Your task to perform on an android device: Show the shopping cart on bestbuy.com. Image 0: 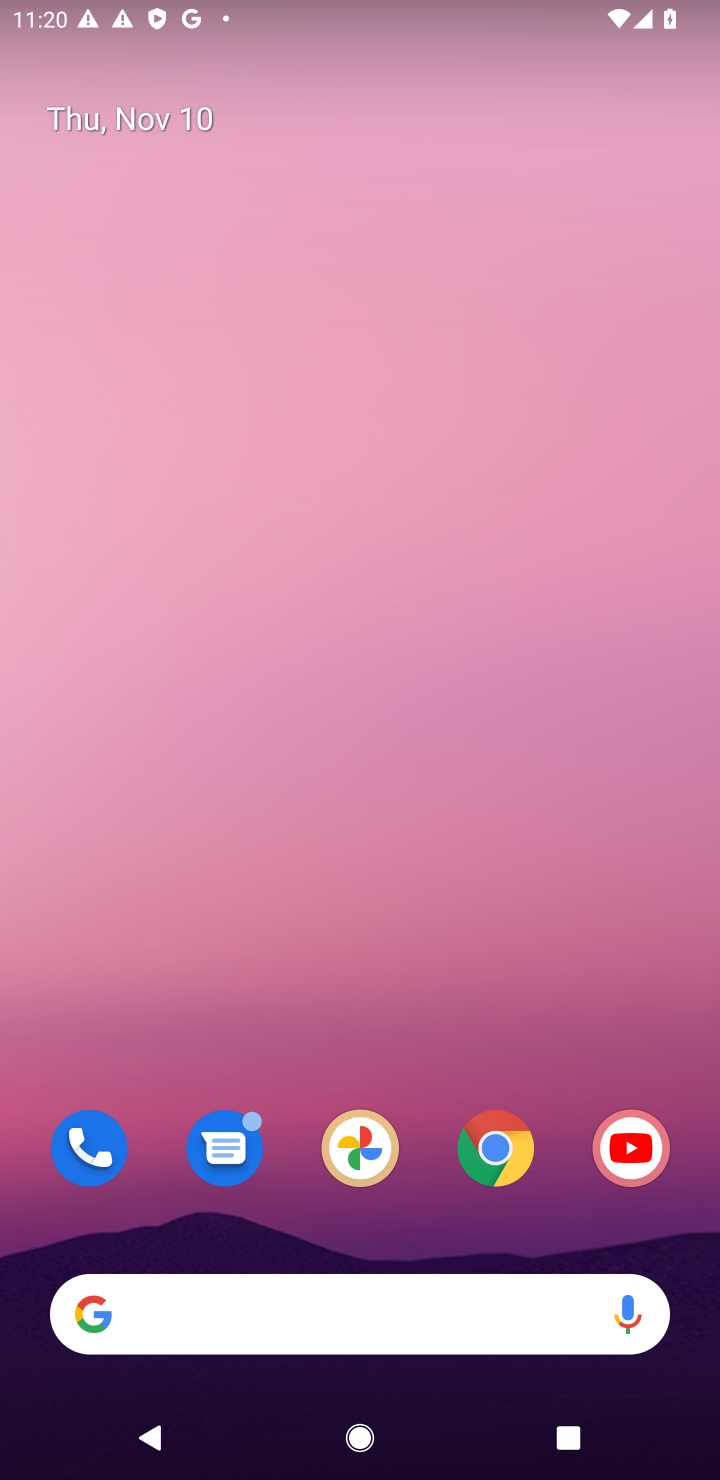
Step 0: click (516, 1136)
Your task to perform on an android device: Show the shopping cart on bestbuy.com. Image 1: 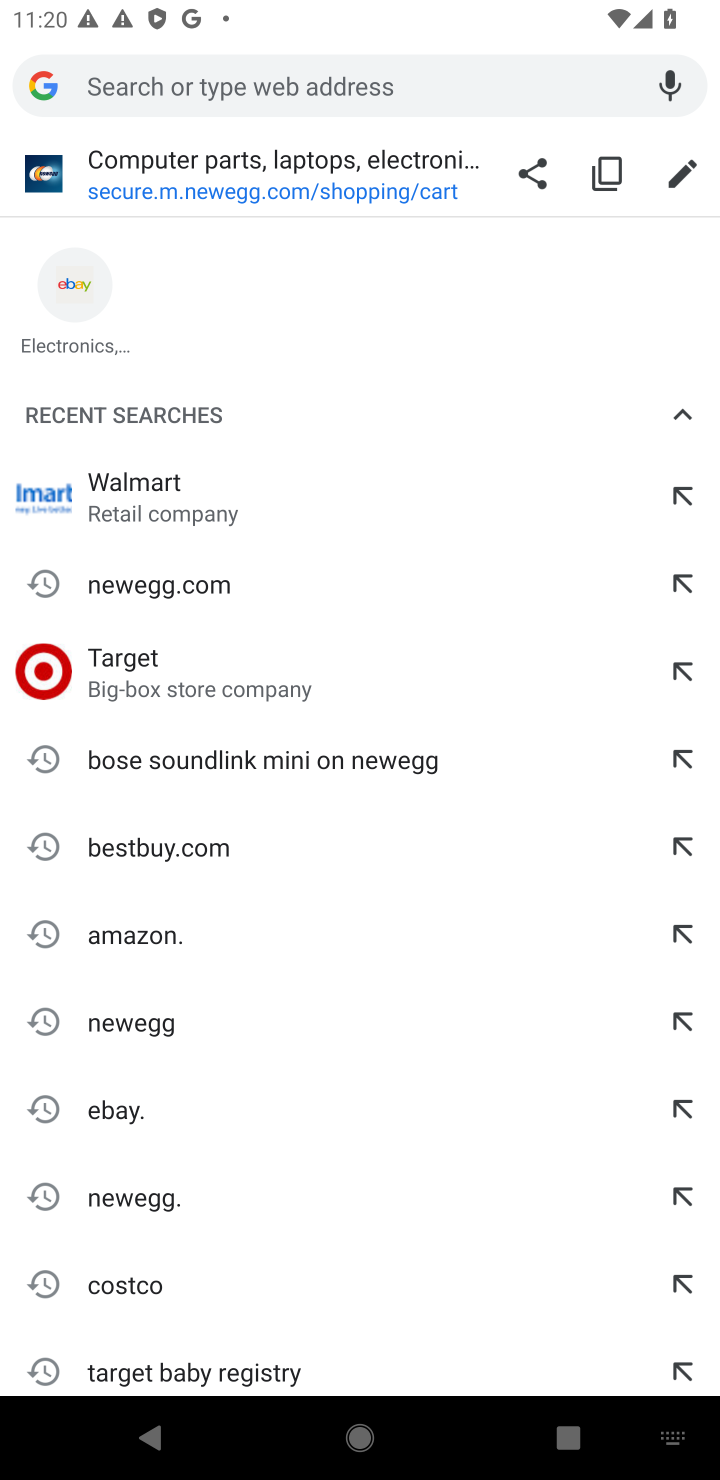
Step 1: click (141, 842)
Your task to perform on an android device: Show the shopping cart on bestbuy.com. Image 2: 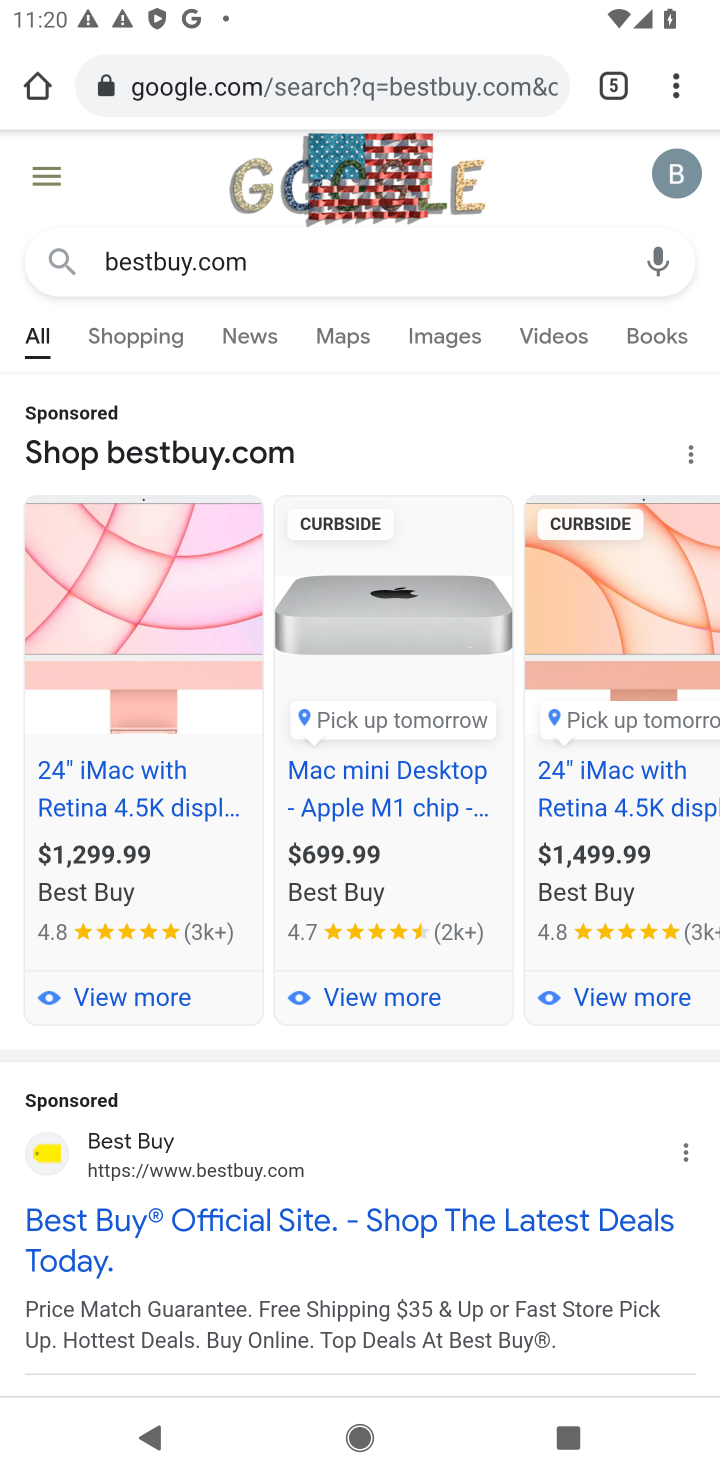
Step 2: click (119, 1215)
Your task to perform on an android device: Show the shopping cart on bestbuy.com. Image 3: 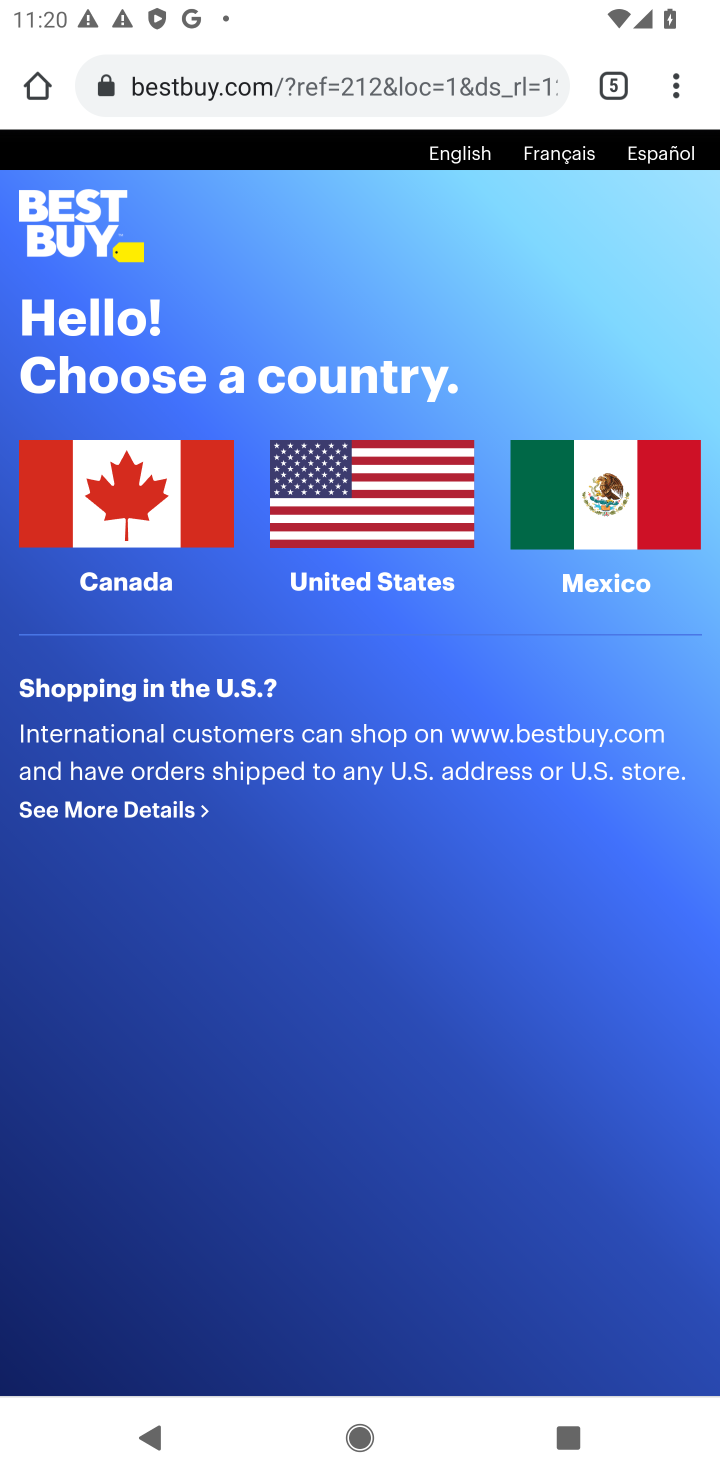
Step 3: click (379, 446)
Your task to perform on an android device: Show the shopping cart on bestbuy.com. Image 4: 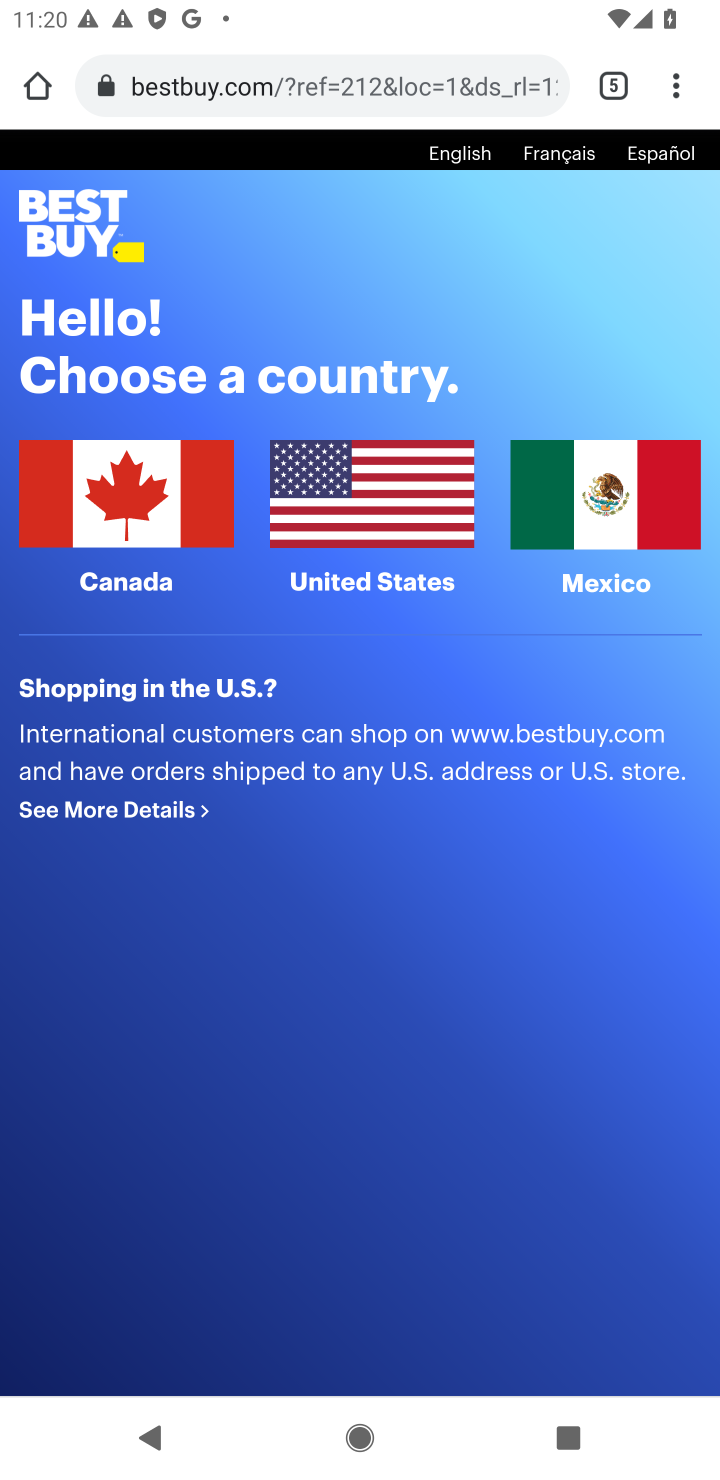
Step 4: click (379, 446)
Your task to perform on an android device: Show the shopping cart on bestbuy.com. Image 5: 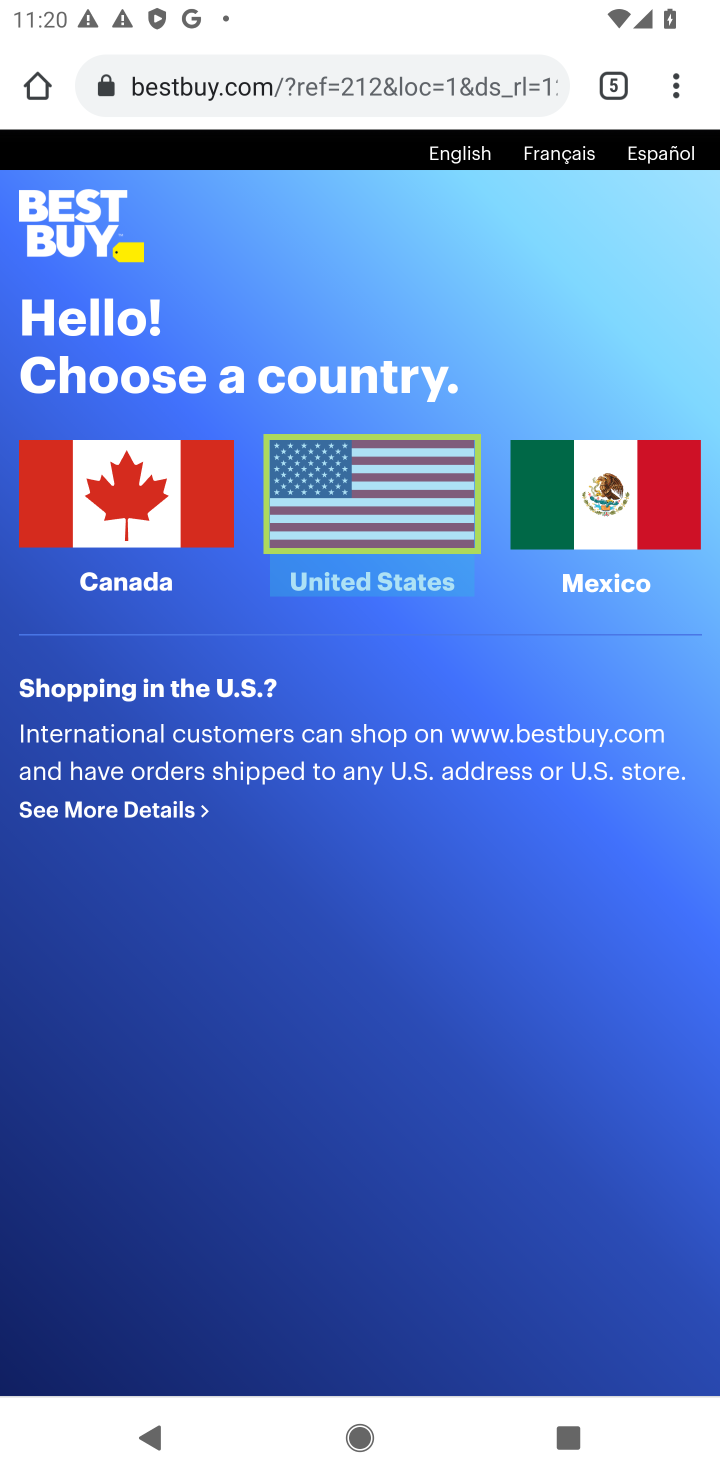
Step 5: task complete